Your task to perform on an android device: Go to Google maps Image 0: 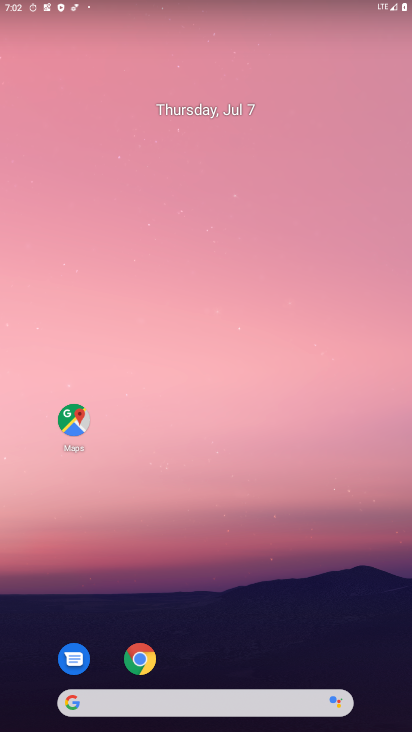
Step 0: drag from (383, 664) to (207, 27)
Your task to perform on an android device: Go to Google maps Image 1: 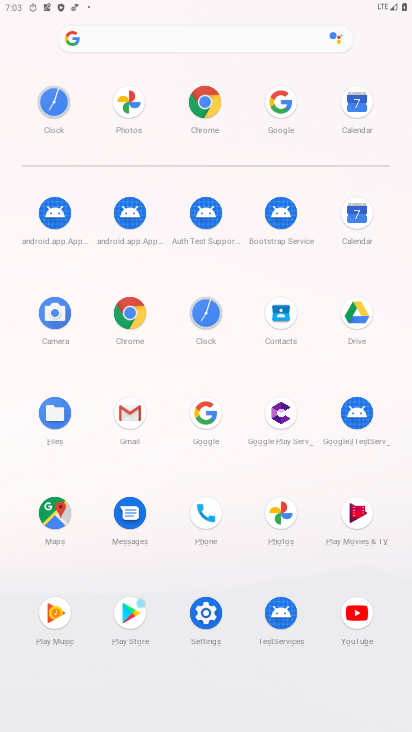
Step 1: click (50, 523)
Your task to perform on an android device: Go to Google maps Image 2: 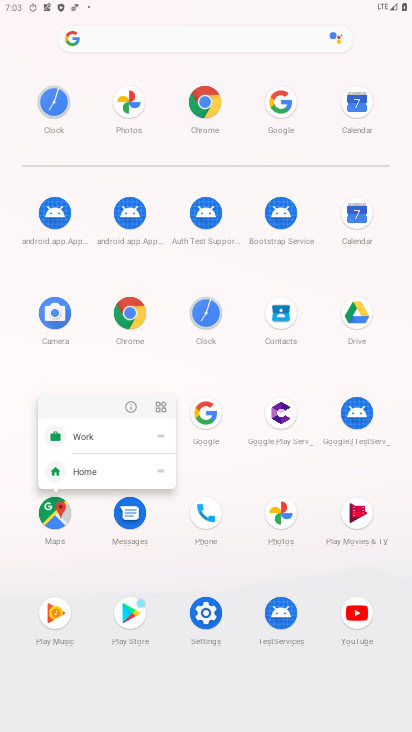
Step 2: click (33, 525)
Your task to perform on an android device: Go to Google maps Image 3: 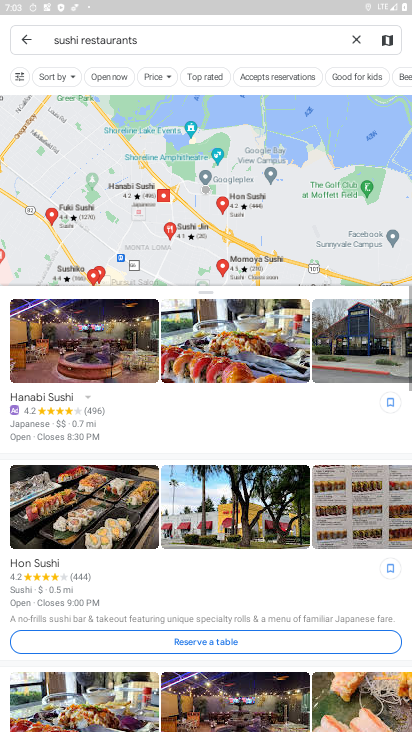
Step 3: click (356, 37)
Your task to perform on an android device: Go to Google maps Image 4: 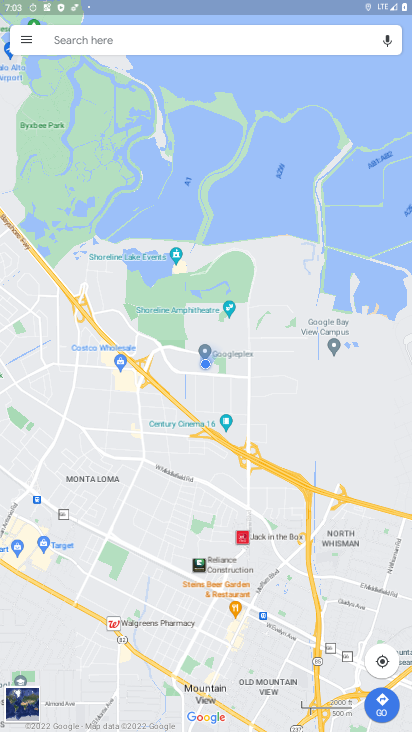
Step 4: task complete